Your task to perform on an android device: Go to display settings Image 0: 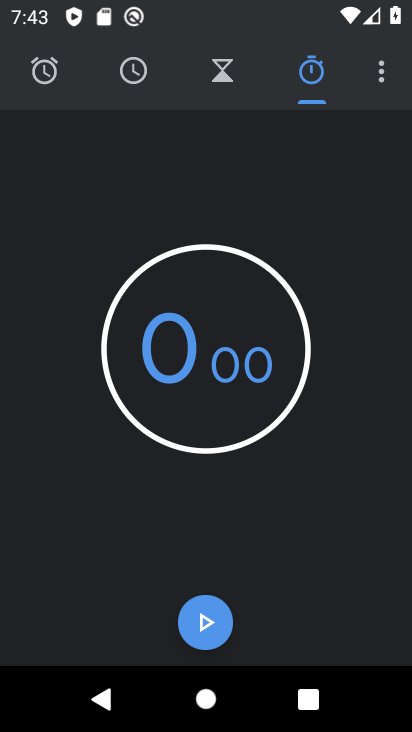
Step 0: press home button
Your task to perform on an android device: Go to display settings Image 1: 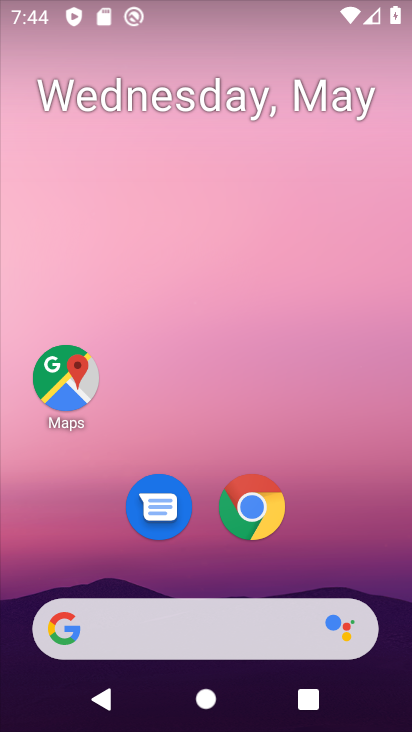
Step 1: drag from (307, 471) to (333, 142)
Your task to perform on an android device: Go to display settings Image 2: 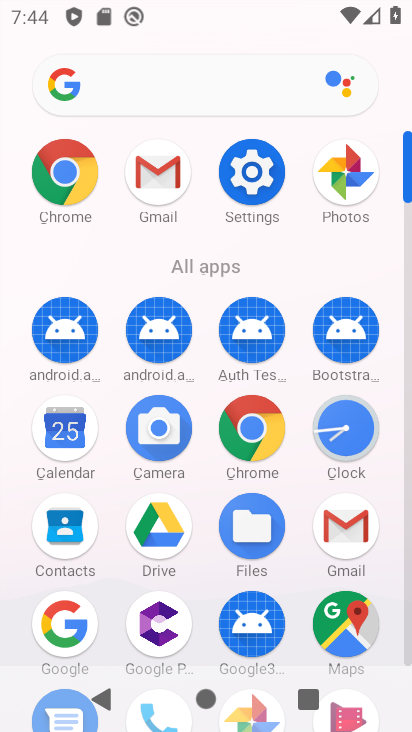
Step 2: click (263, 170)
Your task to perform on an android device: Go to display settings Image 3: 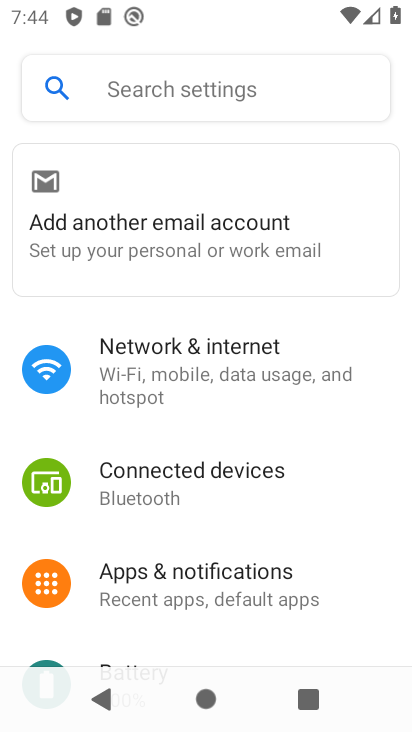
Step 3: drag from (172, 491) to (201, 295)
Your task to perform on an android device: Go to display settings Image 4: 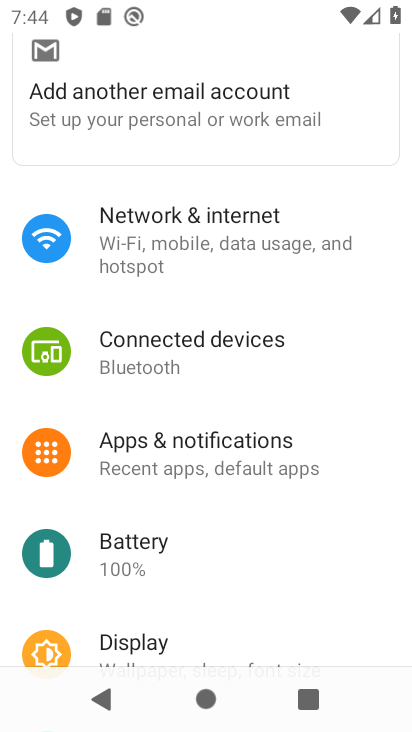
Step 4: click (147, 635)
Your task to perform on an android device: Go to display settings Image 5: 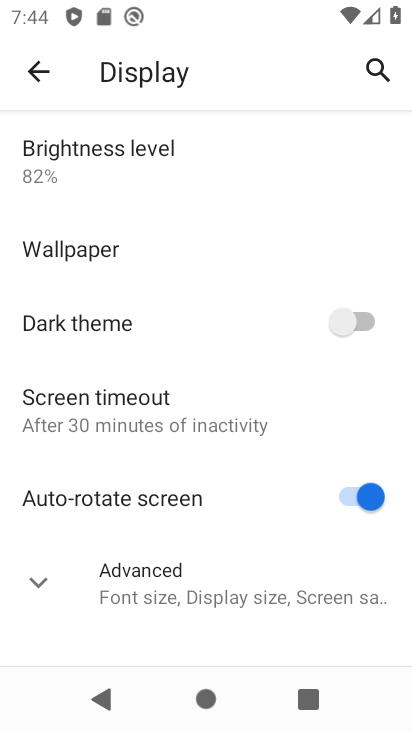
Step 5: task complete